Your task to perform on an android device: Open Google Maps Image 0: 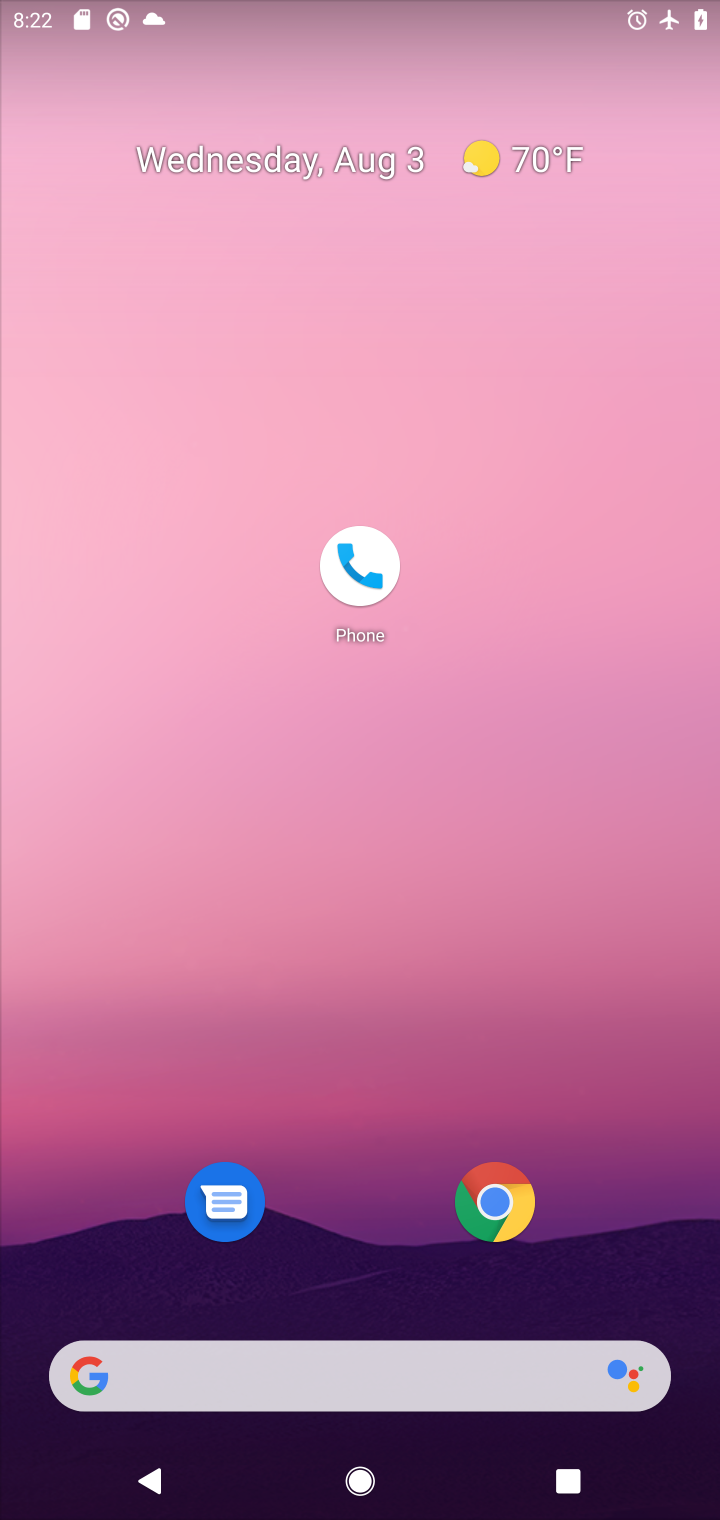
Step 0: drag from (298, 1371) to (508, 245)
Your task to perform on an android device: Open Google Maps Image 1: 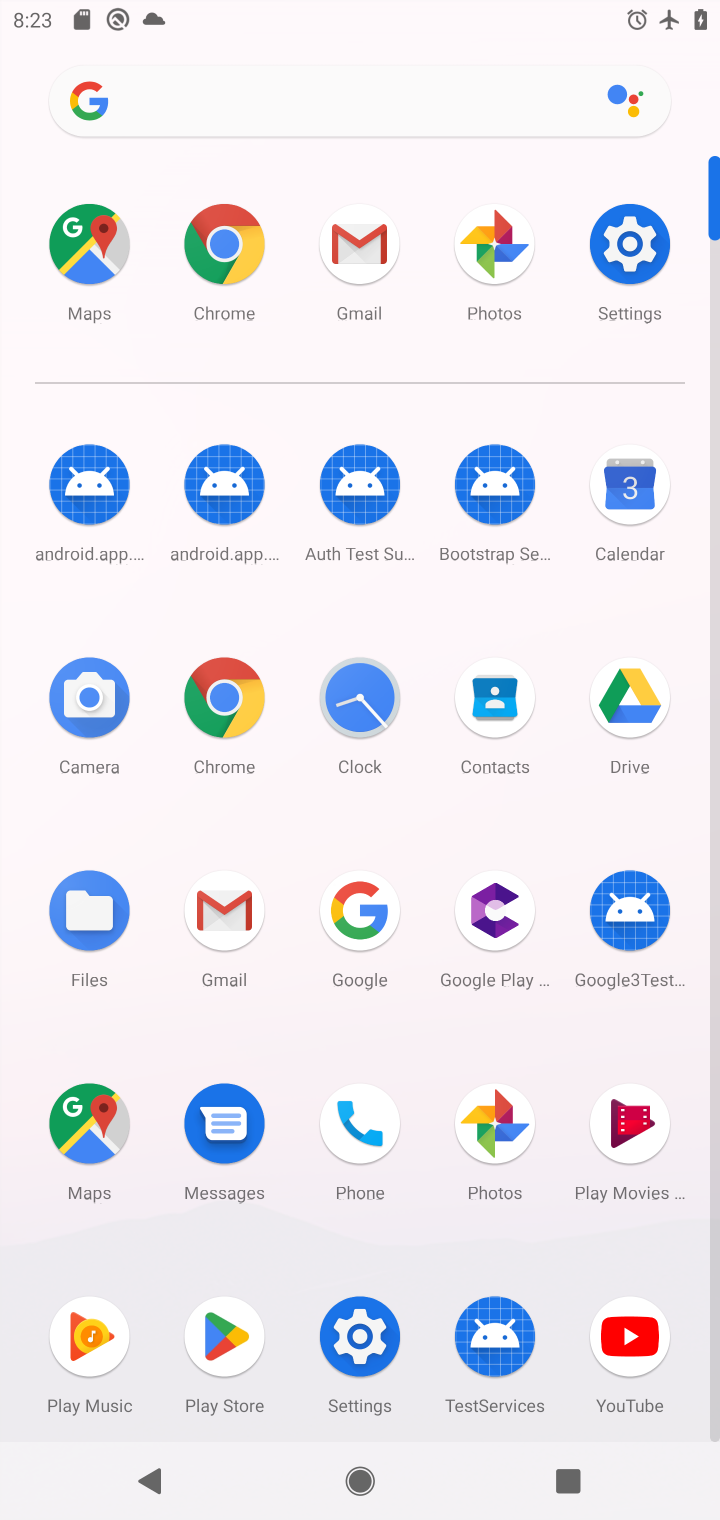
Step 1: click (91, 252)
Your task to perform on an android device: Open Google Maps Image 2: 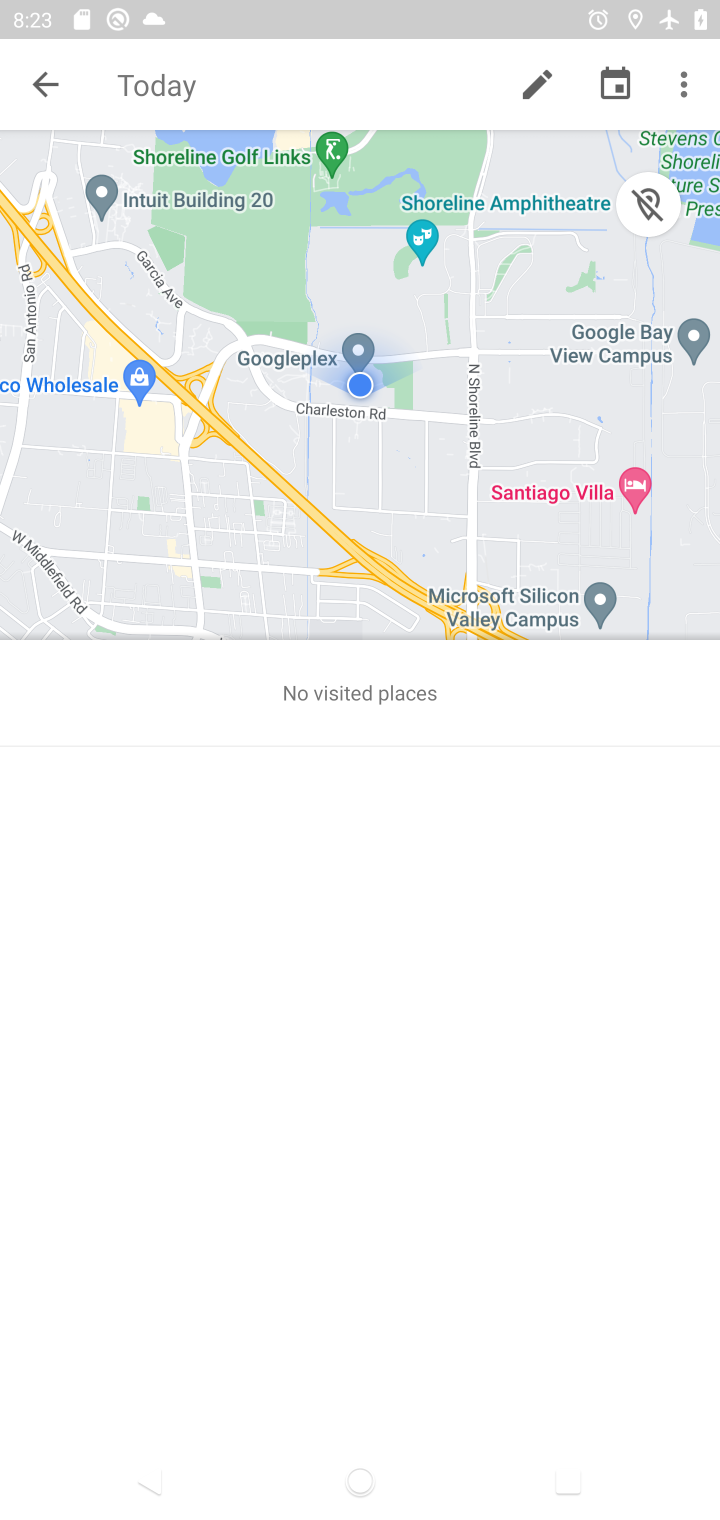
Step 2: task complete